Your task to perform on an android device: What is the recent news? Image 0: 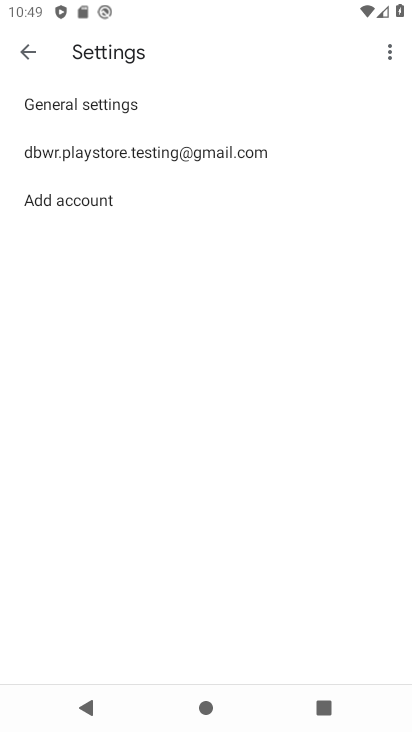
Step 0: press home button
Your task to perform on an android device: What is the recent news? Image 1: 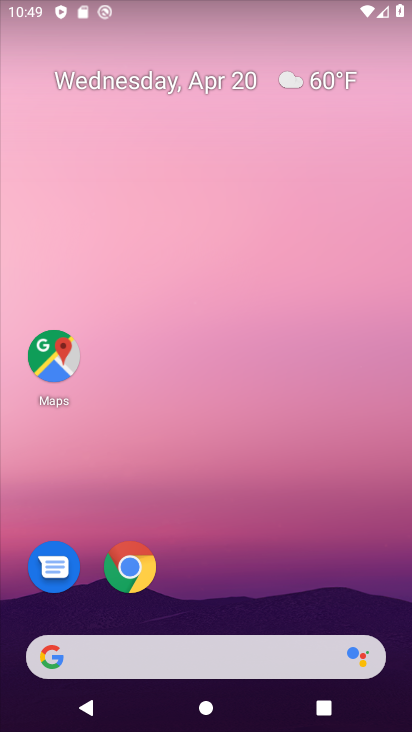
Step 1: task complete